Your task to perform on an android device: Open accessibility settings Image 0: 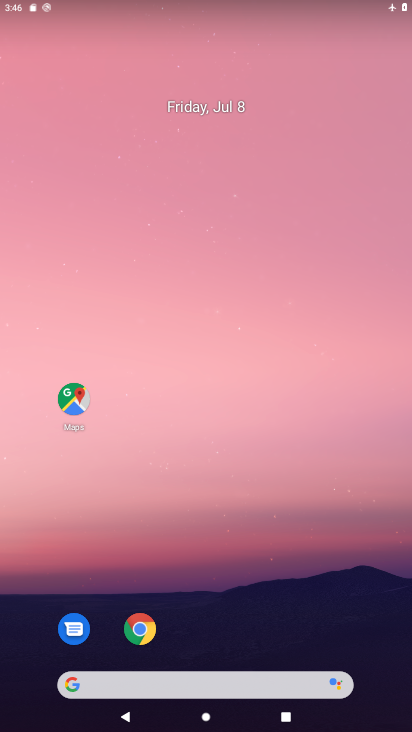
Step 0: drag from (275, 627) to (252, 72)
Your task to perform on an android device: Open accessibility settings Image 1: 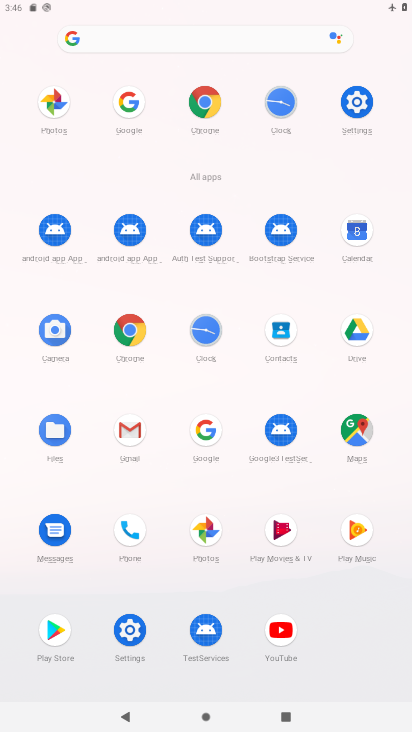
Step 1: click (349, 89)
Your task to perform on an android device: Open accessibility settings Image 2: 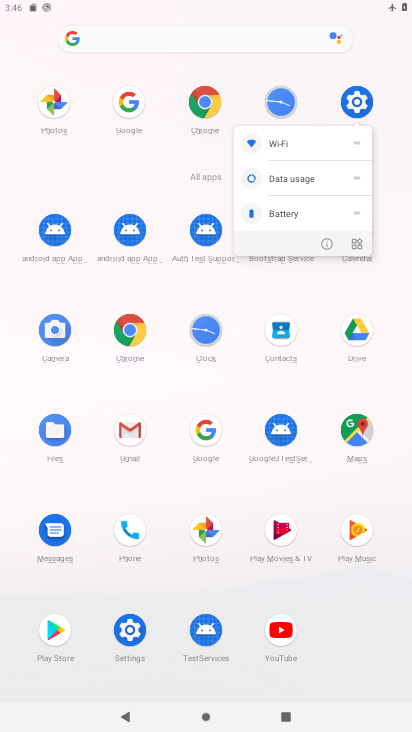
Step 2: click (358, 101)
Your task to perform on an android device: Open accessibility settings Image 3: 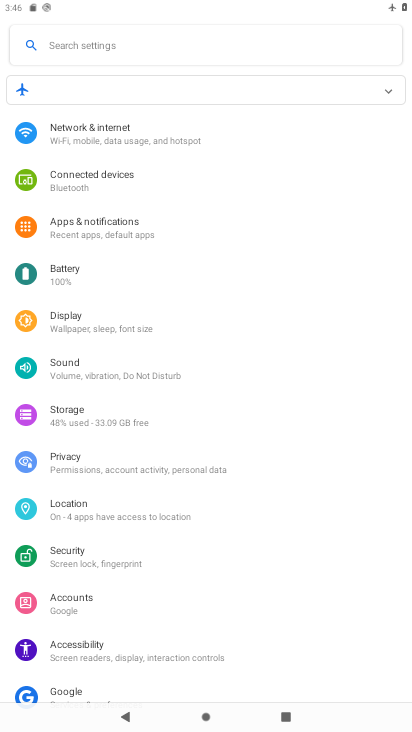
Step 3: click (98, 649)
Your task to perform on an android device: Open accessibility settings Image 4: 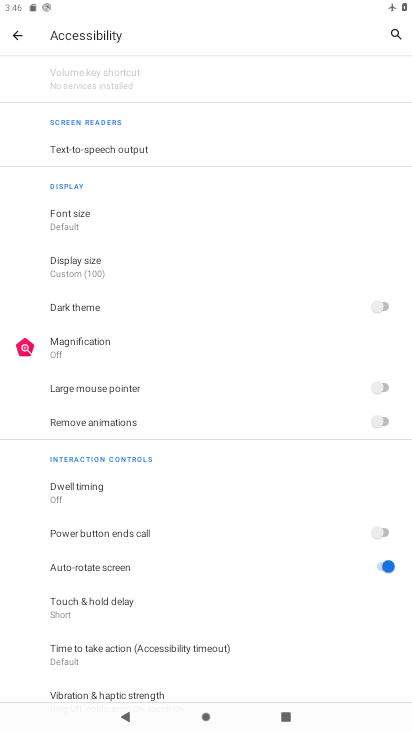
Step 4: task complete